Your task to perform on an android device: check storage Image 0: 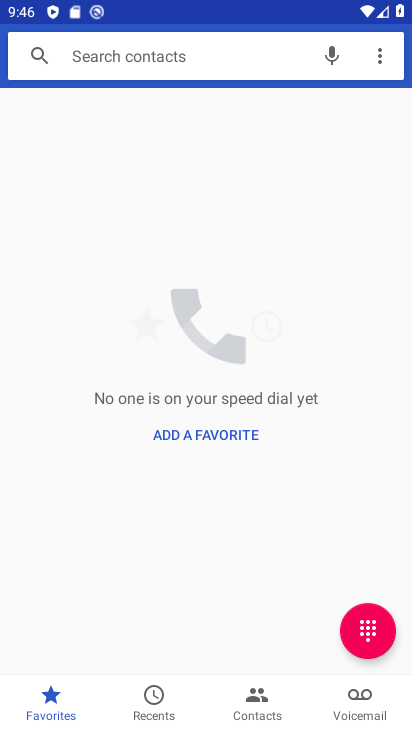
Step 0: press home button
Your task to perform on an android device: check storage Image 1: 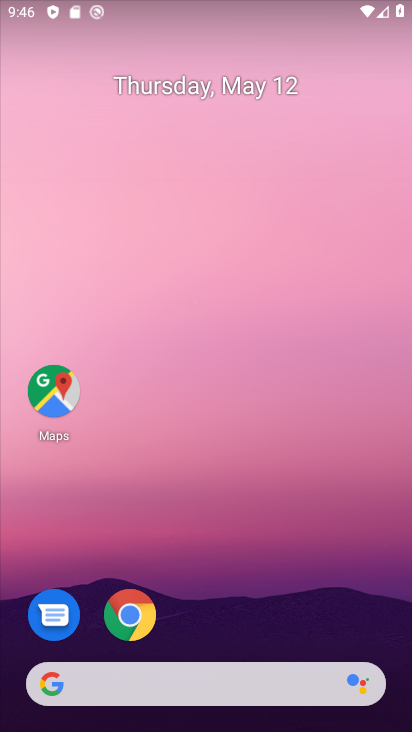
Step 1: drag from (214, 708) to (240, 221)
Your task to perform on an android device: check storage Image 2: 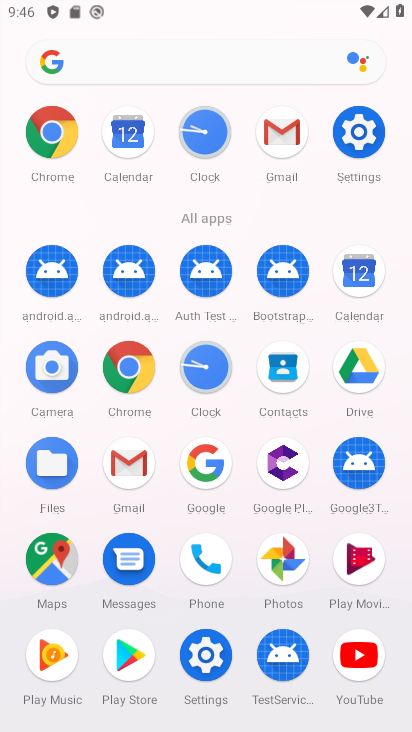
Step 2: click (354, 139)
Your task to perform on an android device: check storage Image 3: 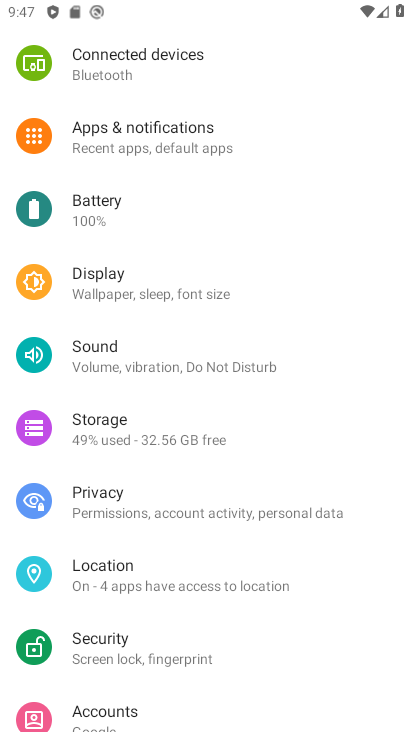
Step 3: drag from (182, 670) to (194, 175)
Your task to perform on an android device: check storage Image 4: 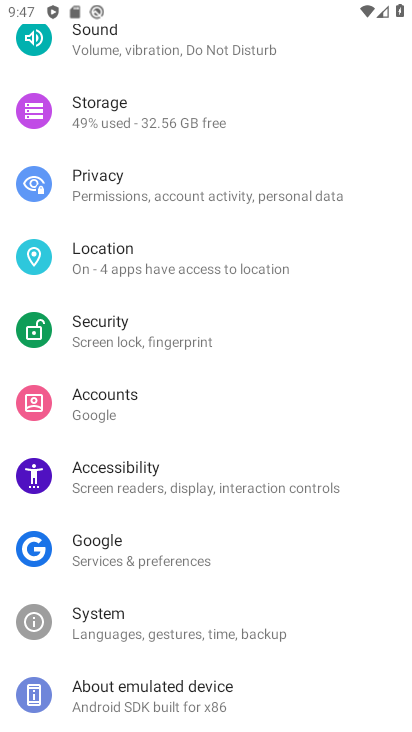
Step 4: drag from (261, 177) to (293, 587)
Your task to perform on an android device: check storage Image 5: 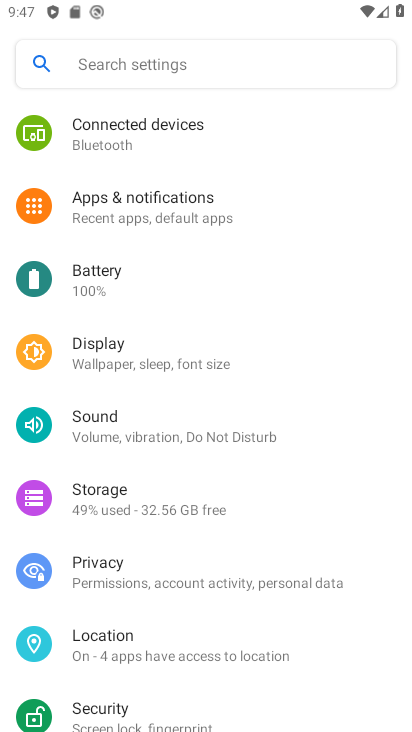
Step 5: click (95, 492)
Your task to perform on an android device: check storage Image 6: 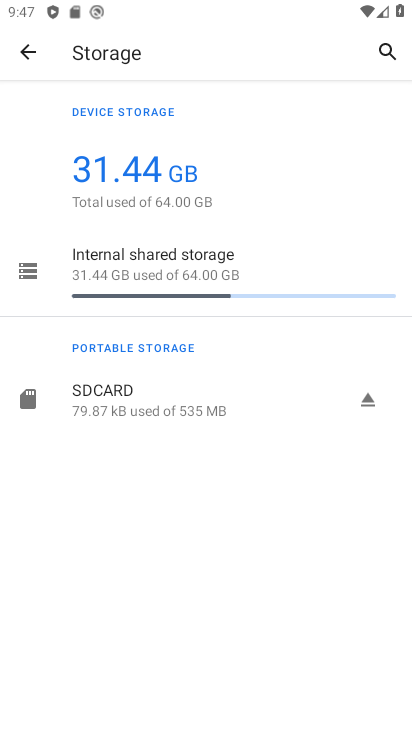
Step 6: task complete